Your task to perform on an android device: What's on my calendar today? Image 0: 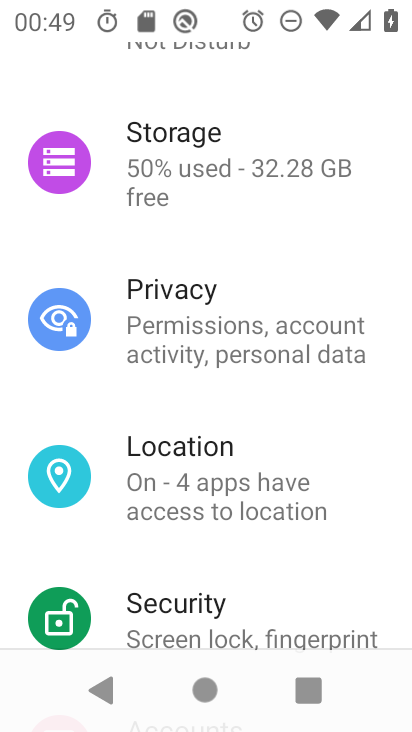
Step 0: press home button
Your task to perform on an android device: What's on my calendar today? Image 1: 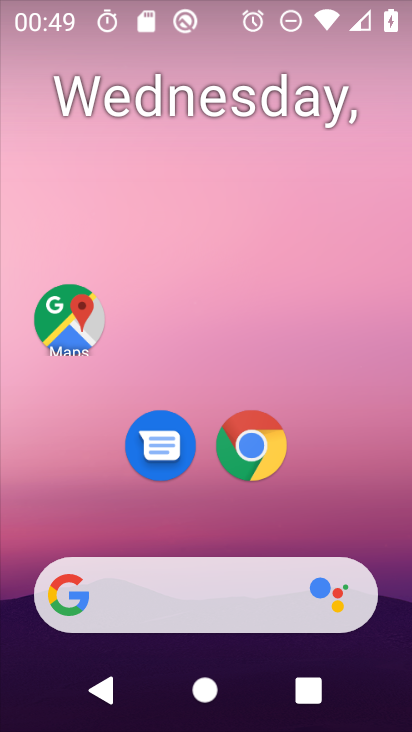
Step 1: drag from (227, 527) to (247, 70)
Your task to perform on an android device: What's on my calendar today? Image 2: 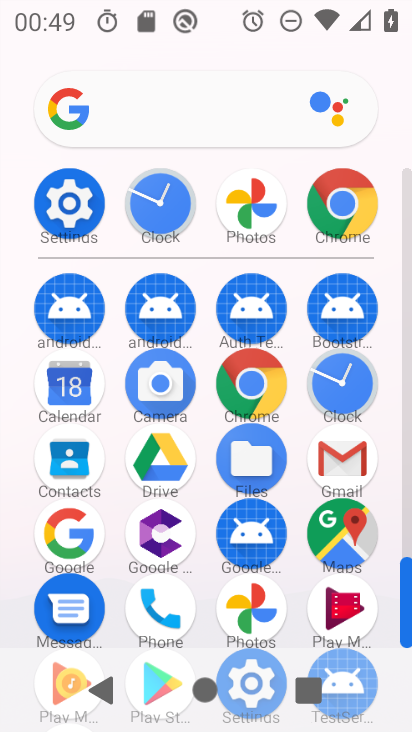
Step 2: click (54, 388)
Your task to perform on an android device: What's on my calendar today? Image 3: 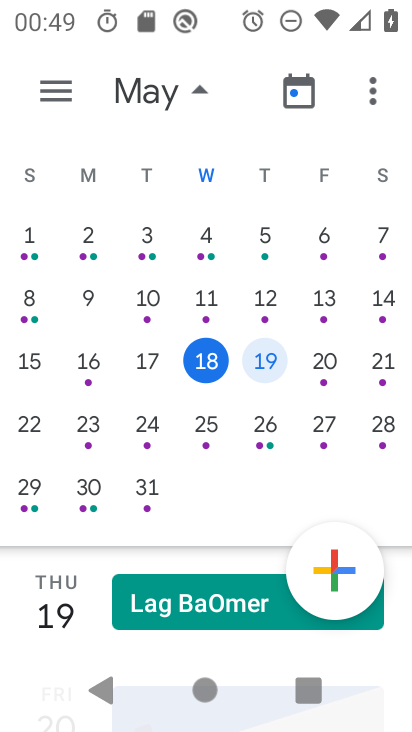
Step 3: click (203, 366)
Your task to perform on an android device: What's on my calendar today? Image 4: 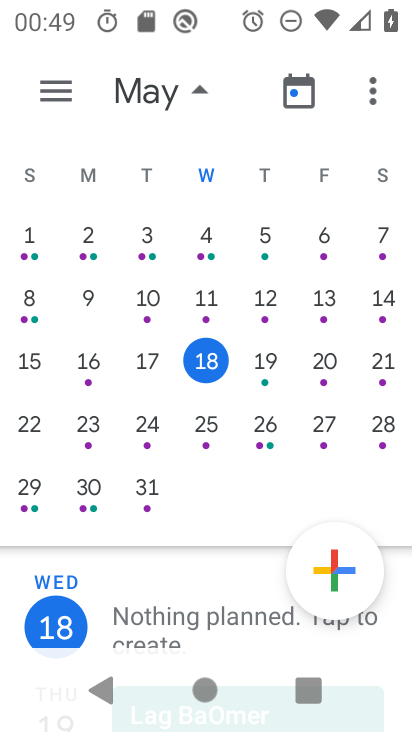
Step 4: task complete